Your task to perform on an android device: turn on data saver in the chrome app Image 0: 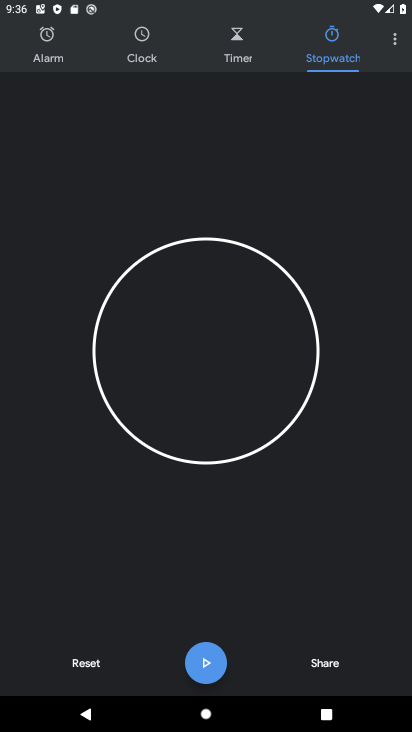
Step 0: press home button
Your task to perform on an android device: turn on data saver in the chrome app Image 1: 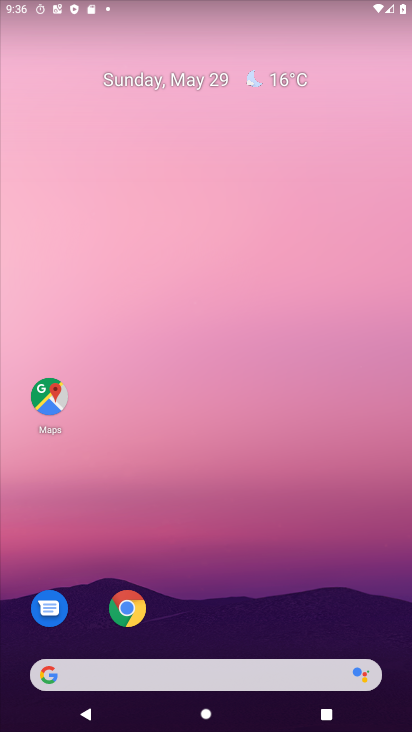
Step 1: click (132, 605)
Your task to perform on an android device: turn on data saver in the chrome app Image 2: 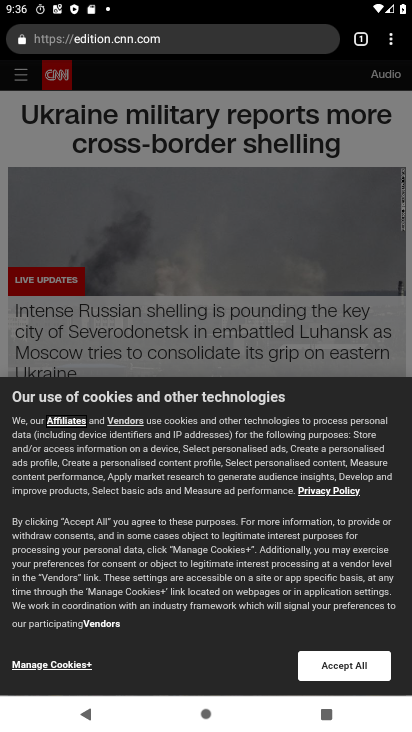
Step 2: click (387, 40)
Your task to perform on an android device: turn on data saver in the chrome app Image 3: 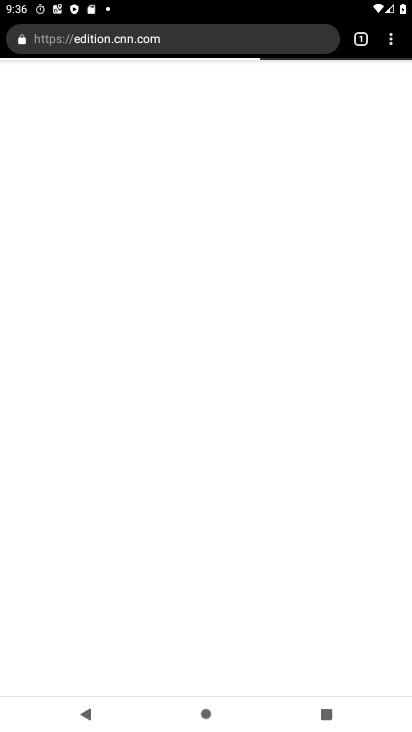
Step 3: click (397, 48)
Your task to perform on an android device: turn on data saver in the chrome app Image 4: 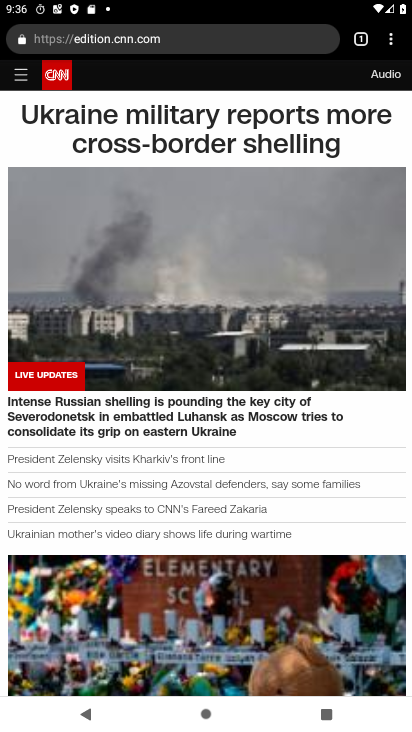
Step 4: click (390, 44)
Your task to perform on an android device: turn on data saver in the chrome app Image 5: 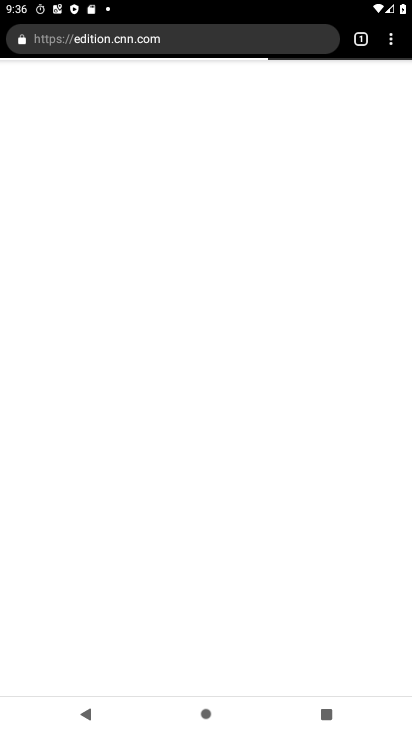
Step 5: click (397, 50)
Your task to perform on an android device: turn on data saver in the chrome app Image 6: 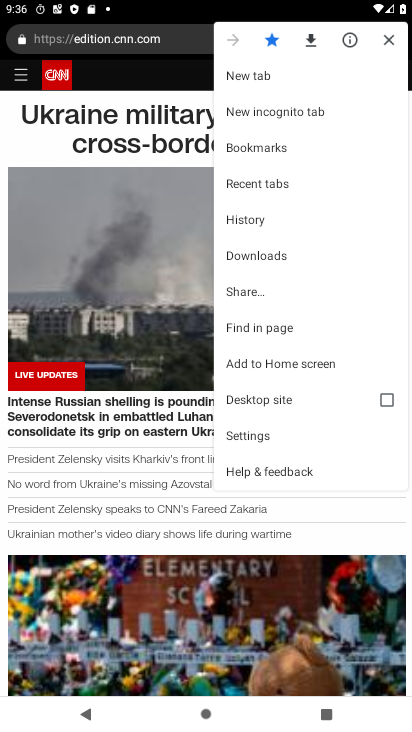
Step 6: click (253, 445)
Your task to perform on an android device: turn on data saver in the chrome app Image 7: 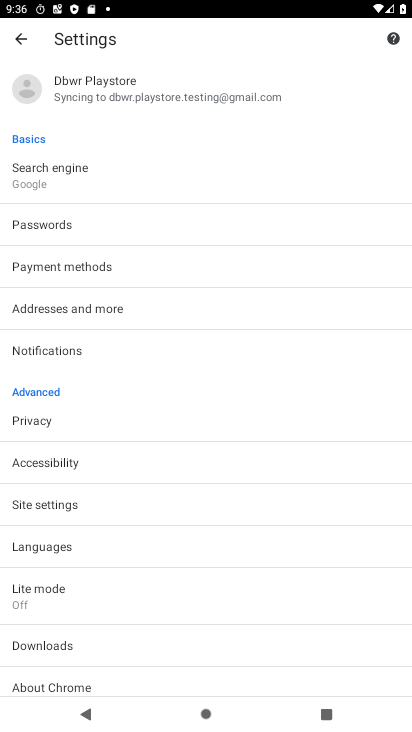
Step 7: click (105, 587)
Your task to perform on an android device: turn on data saver in the chrome app Image 8: 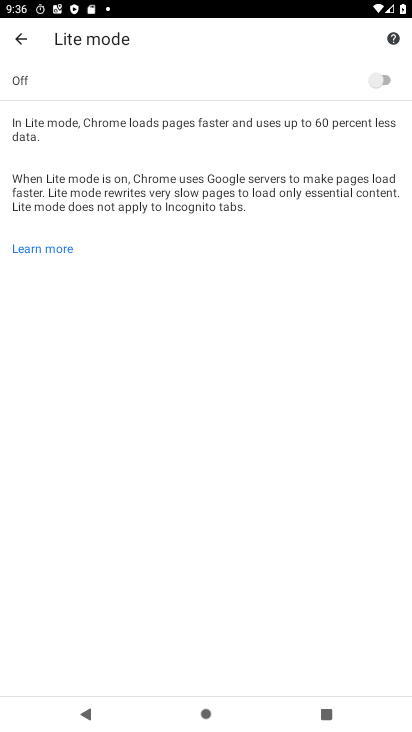
Step 8: click (385, 86)
Your task to perform on an android device: turn on data saver in the chrome app Image 9: 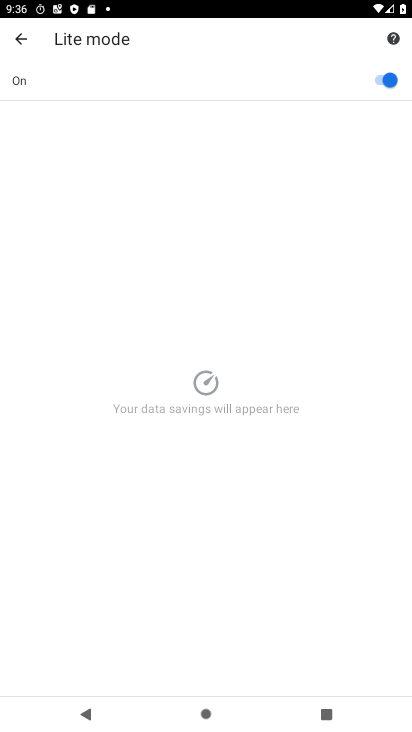
Step 9: task complete